Your task to perform on an android device: check battery use Image 0: 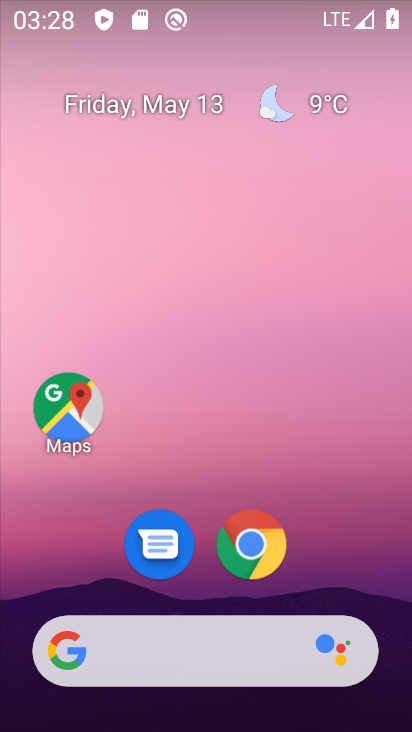
Step 0: drag from (298, 508) to (268, 55)
Your task to perform on an android device: check battery use Image 1: 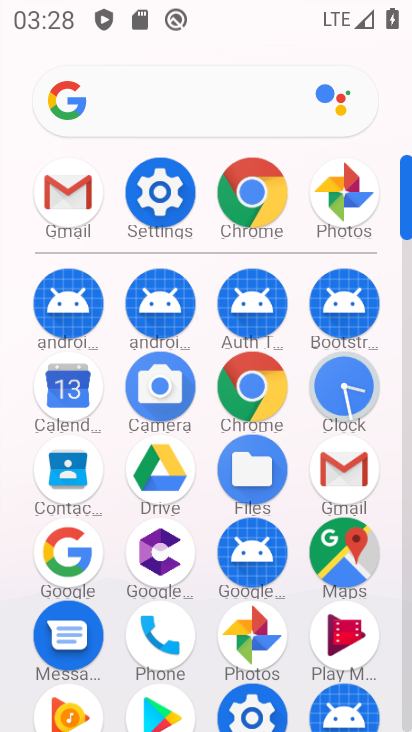
Step 1: drag from (1, 542) to (2, 237)
Your task to perform on an android device: check battery use Image 2: 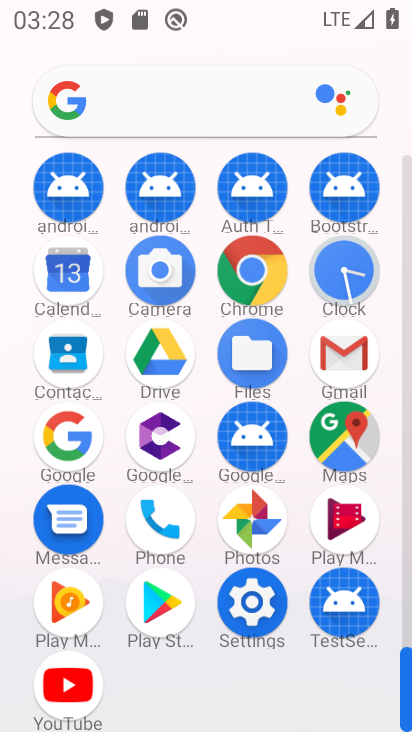
Step 2: click (253, 594)
Your task to perform on an android device: check battery use Image 3: 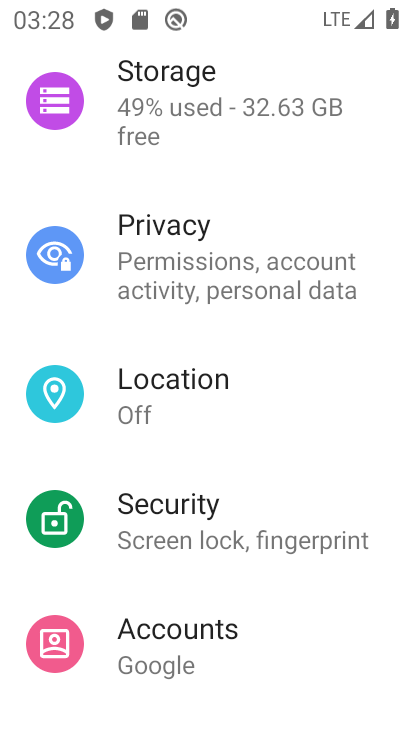
Step 3: drag from (260, 543) to (264, 177)
Your task to perform on an android device: check battery use Image 4: 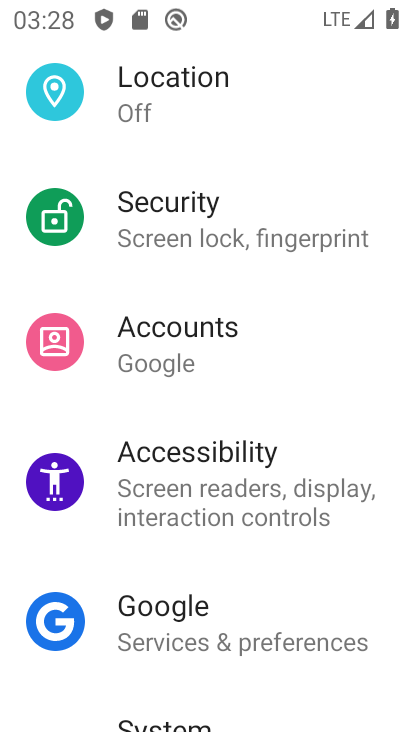
Step 4: drag from (298, 536) to (278, 111)
Your task to perform on an android device: check battery use Image 5: 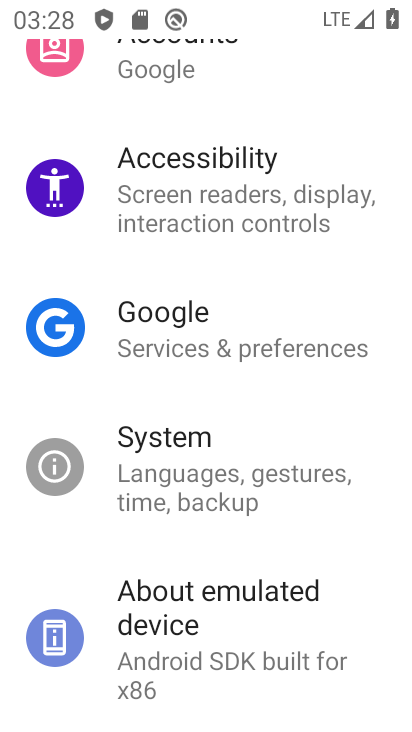
Step 5: drag from (257, 504) to (247, 116)
Your task to perform on an android device: check battery use Image 6: 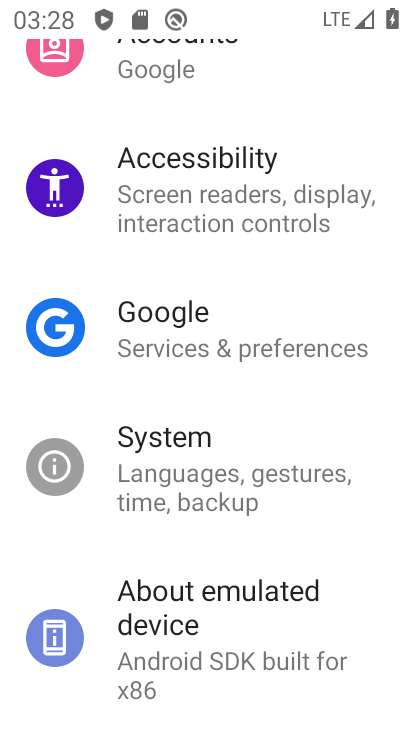
Step 6: drag from (320, 191) to (289, 598)
Your task to perform on an android device: check battery use Image 7: 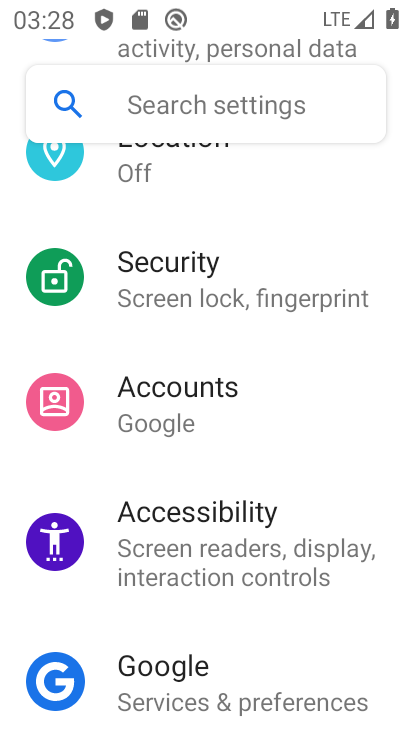
Step 7: drag from (262, 273) to (257, 632)
Your task to perform on an android device: check battery use Image 8: 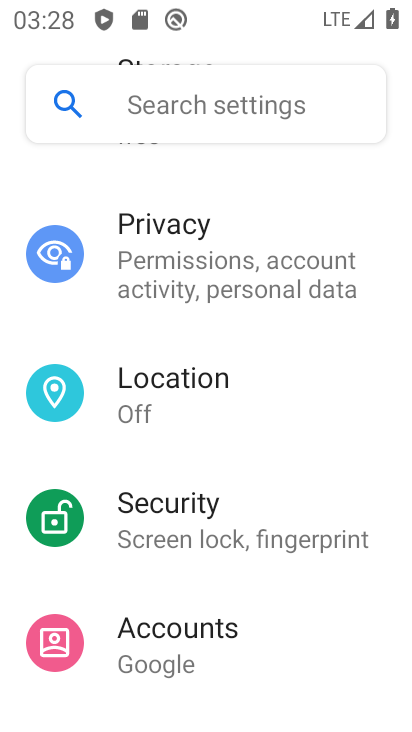
Step 8: drag from (271, 268) to (243, 629)
Your task to perform on an android device: check battery use Image 9: 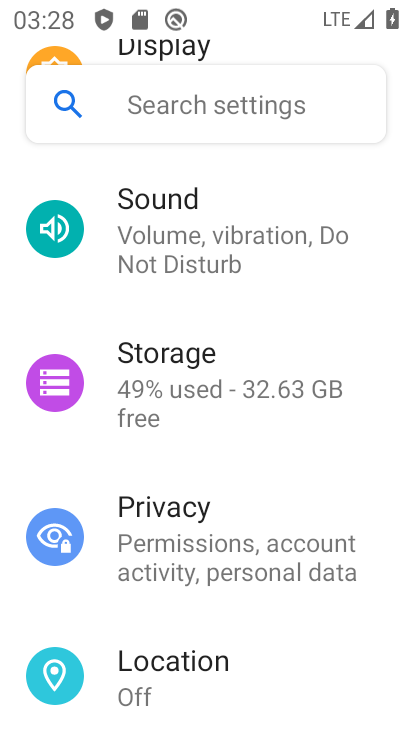
Step 9: drag from (268, 293) to (261, 594)
Your task to perform on an android device: check battery use Image 10: 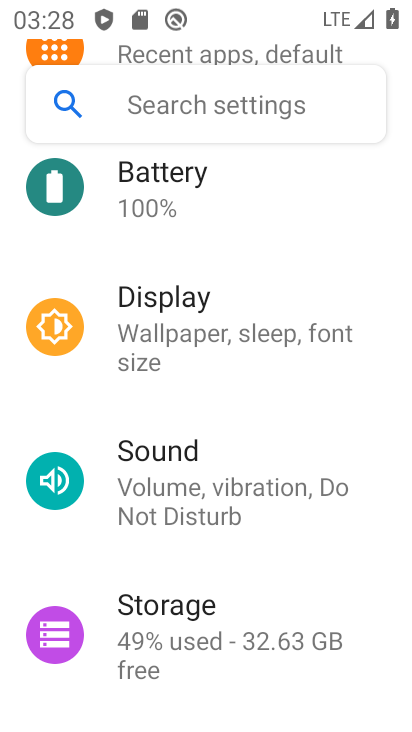
Step 10: drag from (277, 274) to (256, 629)
Your task to perform on an android device: check battery use Image 11: 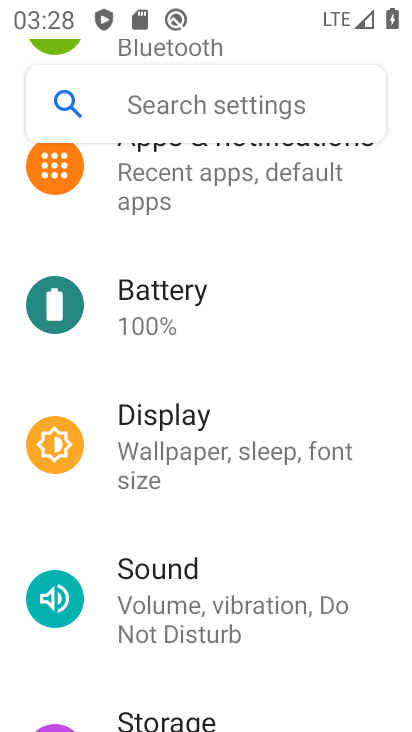
Step 11: click (220, 301)
Your task to perform on an android device: check battery use Image 12: 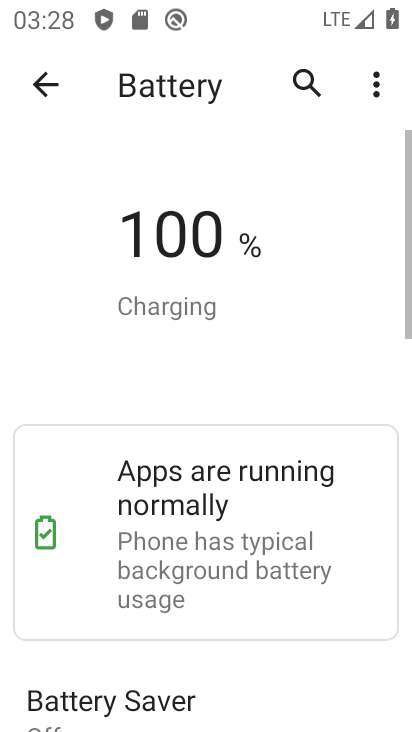
Step 12: task complete